Your task to perform on an android device: turn on the 12-hour format for clock Image 0: 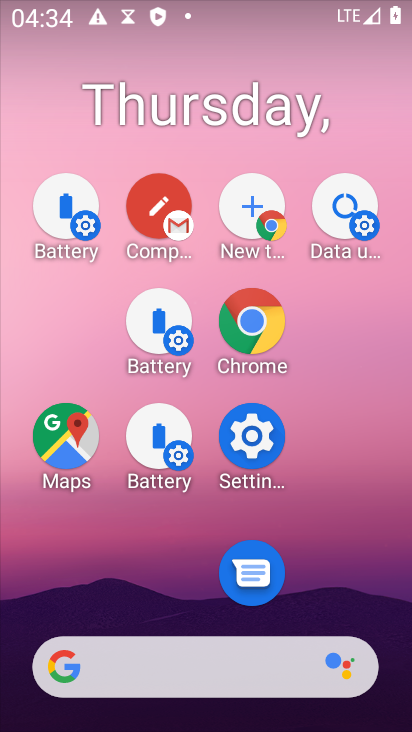
Step 0: click (411, 601)
Your task to perform on an android device: turn on the 12-hour format for clock Image 1: 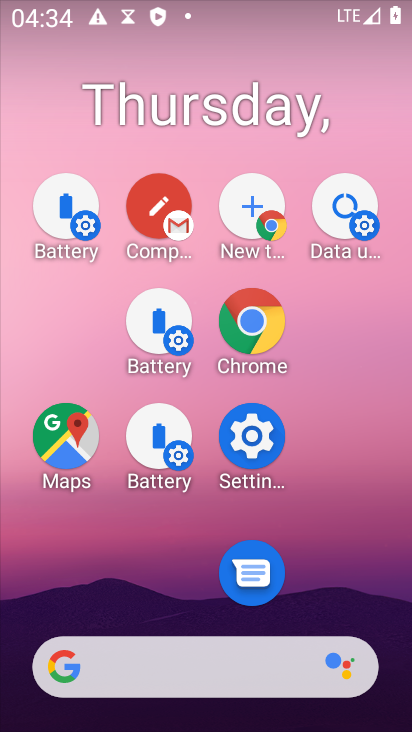
Step 1: drag from (240, 612) to (235, 196)
Your task to perform on an android device: turn on the 12-hour format for clock Image 2: 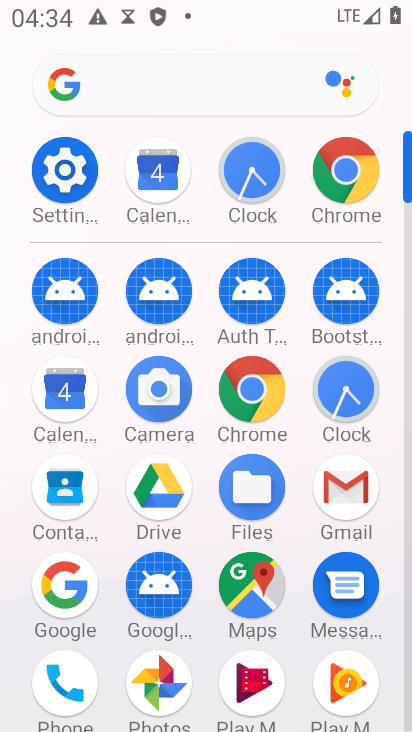
Step 2: click (352, 370)
Your task to perform on an android device: turn on the 12-hour format for clock Image 3: 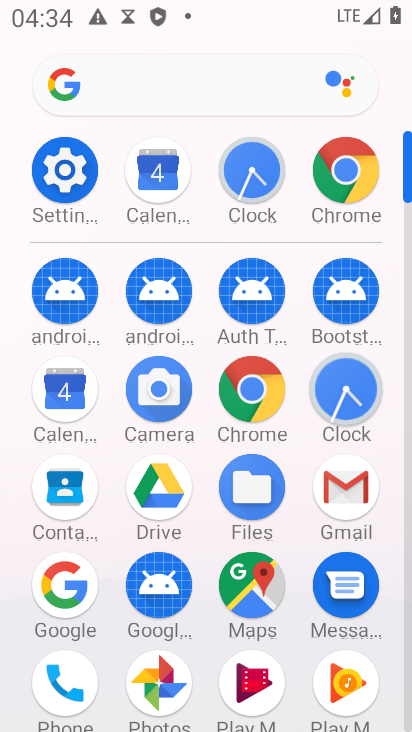
Step 3: click (349, 377)
Your task to perform on an android device: turn on the 12-hour format for clock Image 4: 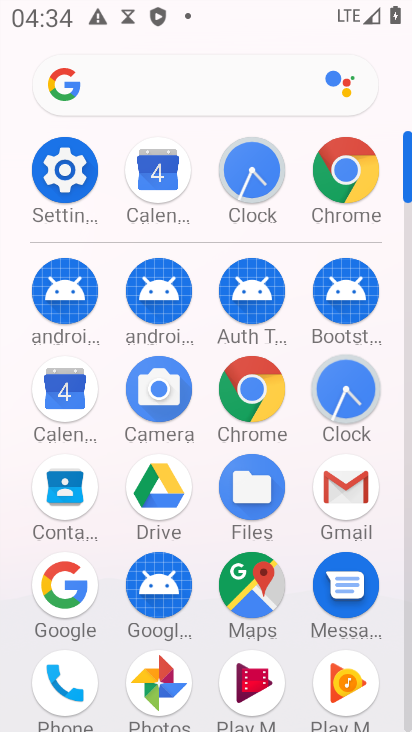
Step 4: click (349, 378)
Your task to perform on an android device: turn on the 12-hour format for clock Image 5: 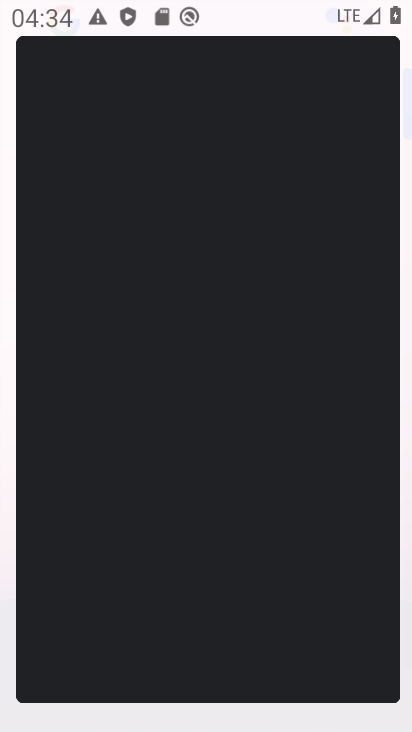
Step 5: click (349, 378)
Your task to perform on an android device: turn on the 12-hour format for clock Image 6: 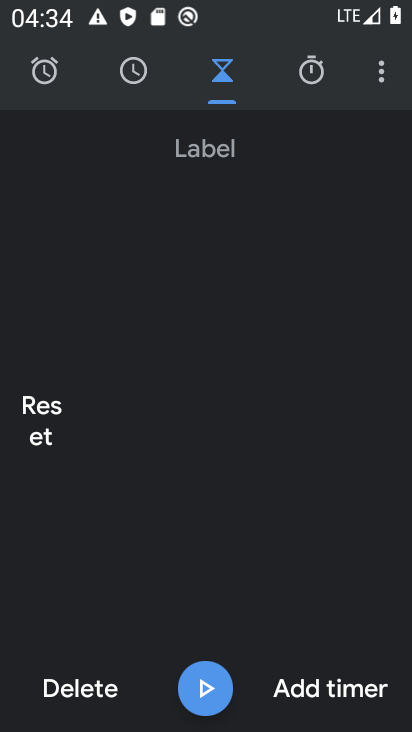
Step 6: click (349, 378)
Your task to perform on an android device: turn on the 12-hour format for clock Image 7: 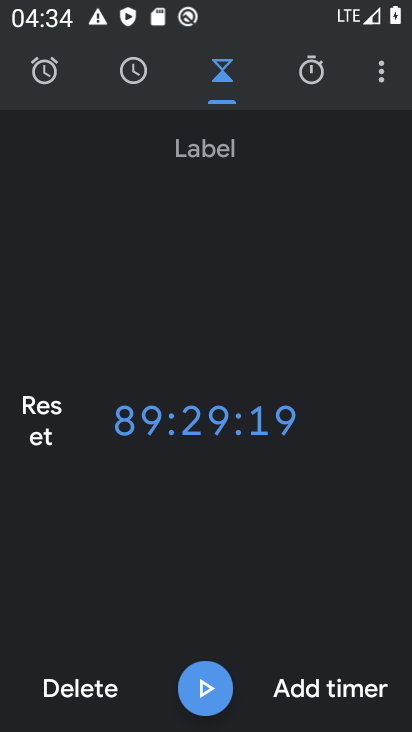
Step 7: click (364, 69)
Your task to perform on an android device: turn on the 12-hour format for clock Image 8: 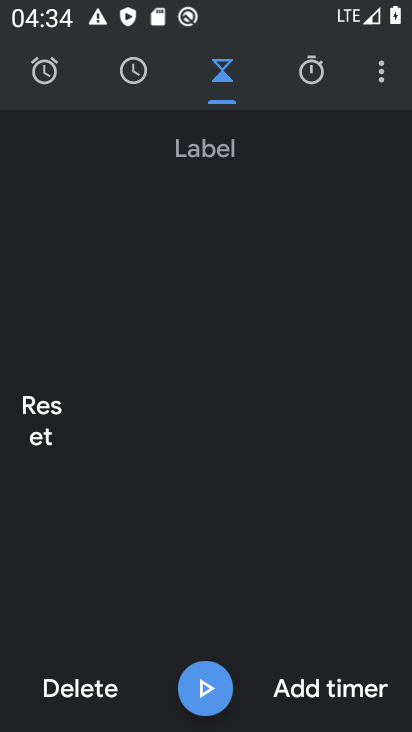
Step 8: click (385, 69)
Your task to perform on an android device: turn on the 12-hour format for clock Image 9: 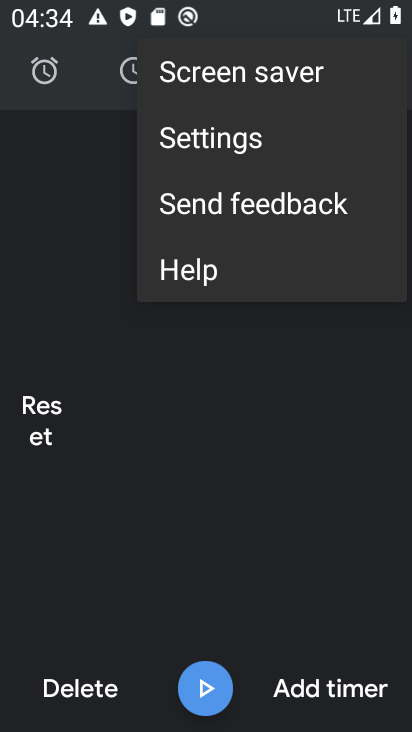
Step 9: click (369, 84)
Your task to perform on an android device: turn on the 12-hour format for clock Image 10: 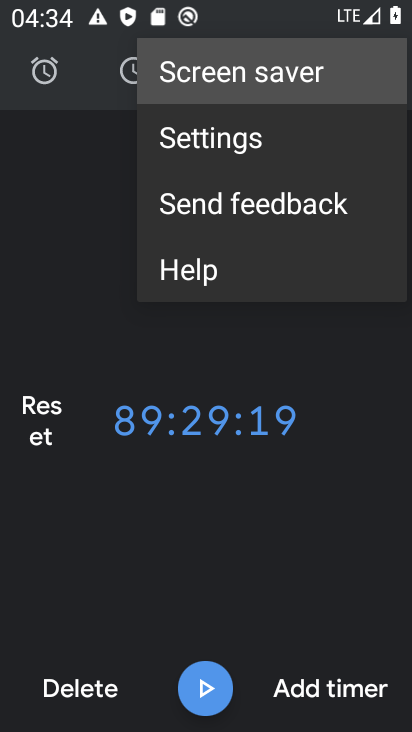
Step 10: click (238, 140)
Your task to perform on an android device: turn on the 12-hour format for clock Image 11: 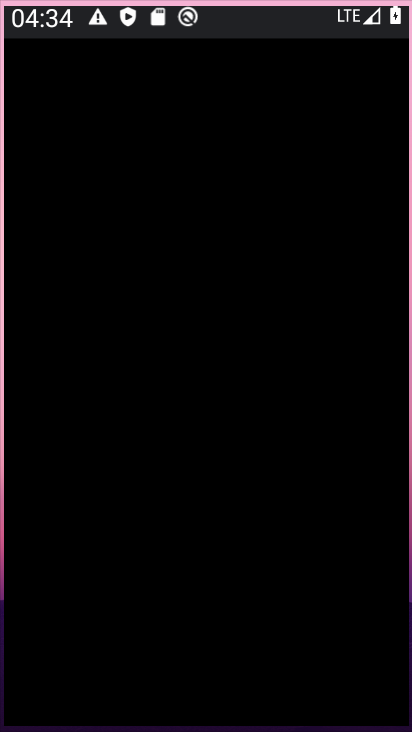
Step 11: click (238, 140)
Your task to perform on an android device: turn on the 12-hour format for clock Image 12: 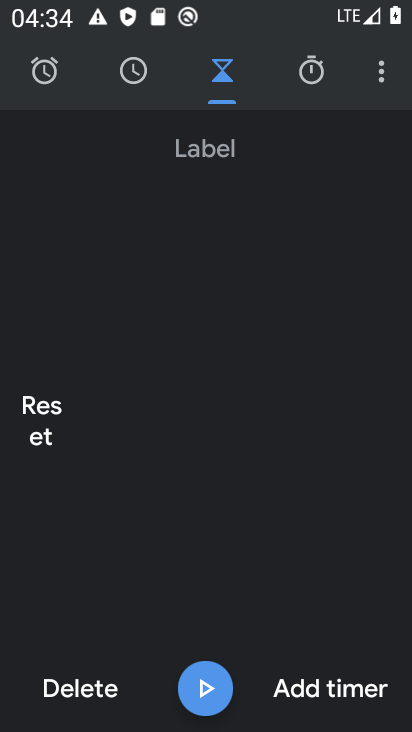
Step 12: click (386, 74)
Your task to perform on an android device: turn on the 12-hour format for clock Image 13: 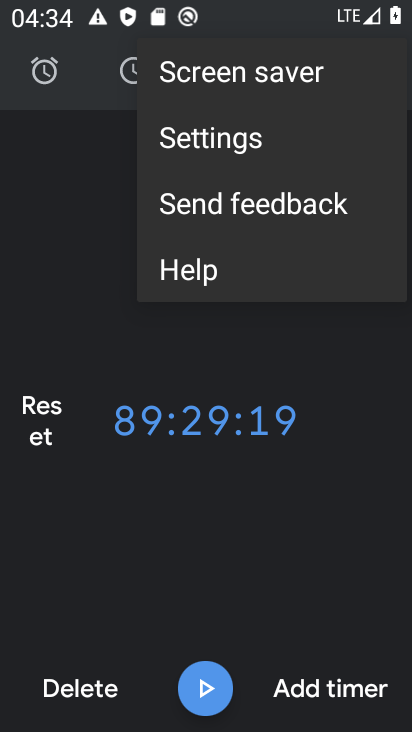
Step 13: click (197, 147)
Your task to perform on an android device: turn on the 12-hour format for clock Image 14: 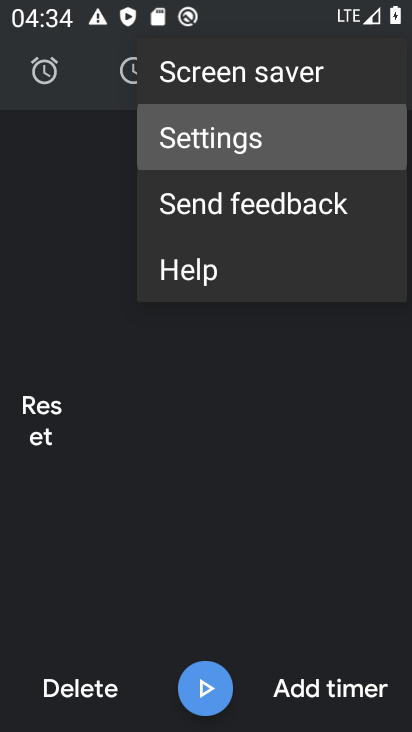
Step 14: click (199, 136)
Your task to perform on an android device: turn on the 12-hour format for clock Image 15: 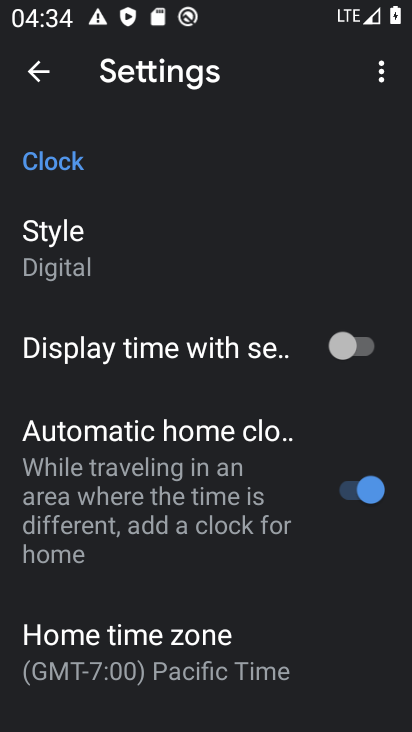
Step 15: click (246, 327)
Your task to perform on an android device: turn on the 12-hour format for clock Image 16: 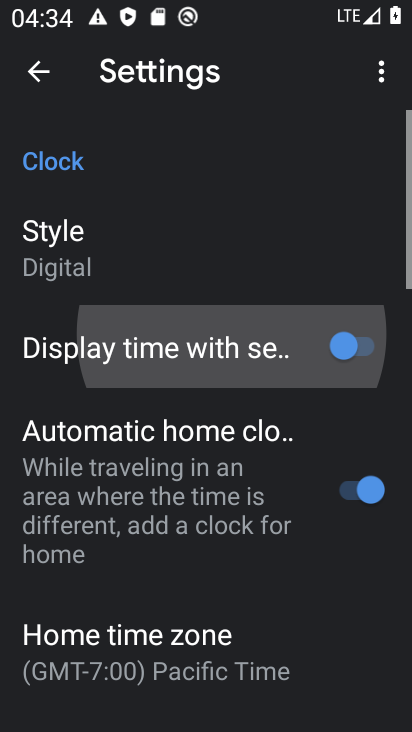
Step 16: drag from (259, 565) to (190, 119)
Your task to perform on an android device: turn on the 12-hour format for clock Image 17: 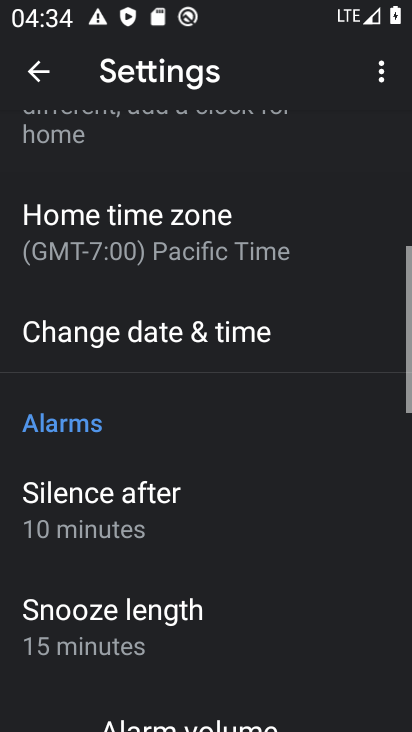
Step 17: drag from (232, 475) to (206, 166)
Your task to perform on an android device: turn on the 12-hour format for clock Image 18: 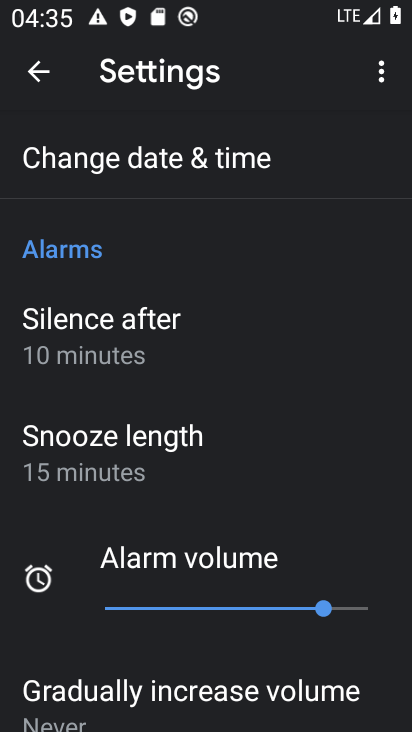
Step 18: click (164, 143)
Your task to perform on an android device: turn on the 12-hour format for clock Image 19: 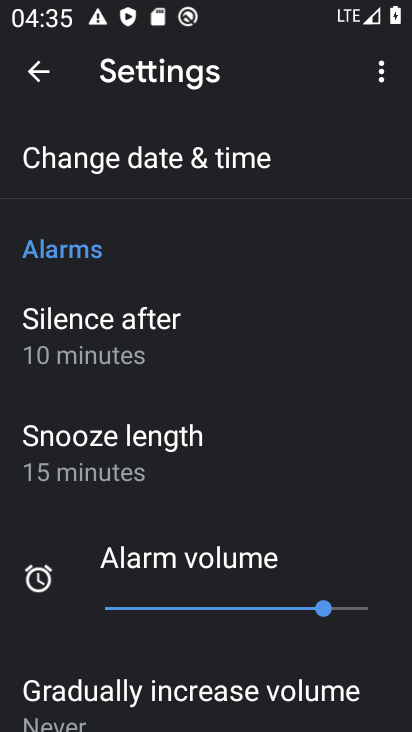
Step 19: click (166, 146)
Your task to perform on an android device: turn on the 12-hour format for clock Image 20: 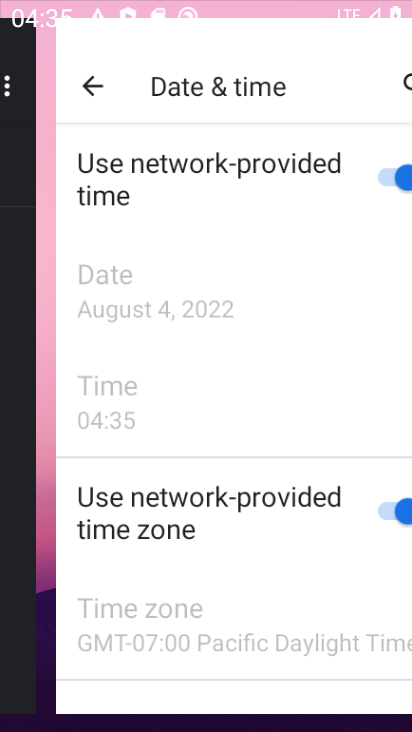
Step 20: click (167, 146)
Your task to perform on an android device: turn on the 12-hour format for clock Image 21: 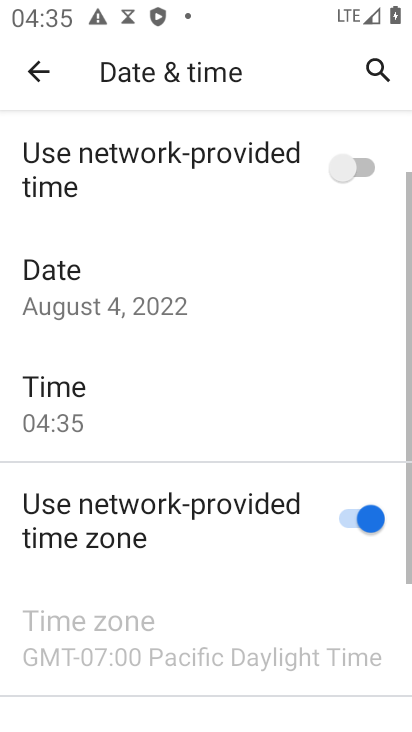
Step 21: drag from (330, 620) to (294, 328)
Your task to perform on an android device: turn on the 12-hour format for clock Image 22: 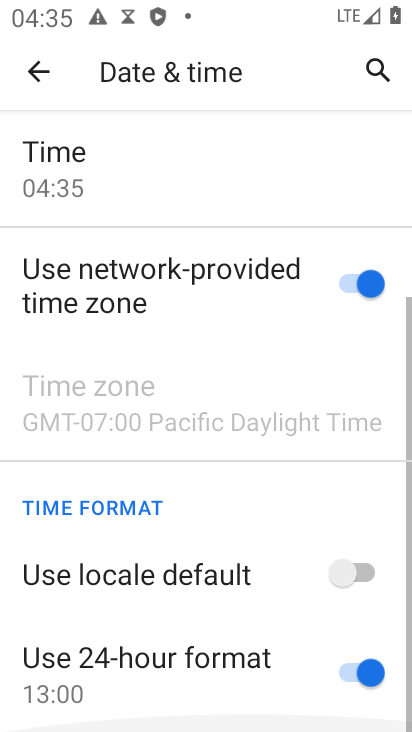
Step 22: drag from (250, 478) to (237, 279)
Your task to perform on an android device: turn on the 12-hour format for clock Image 23: 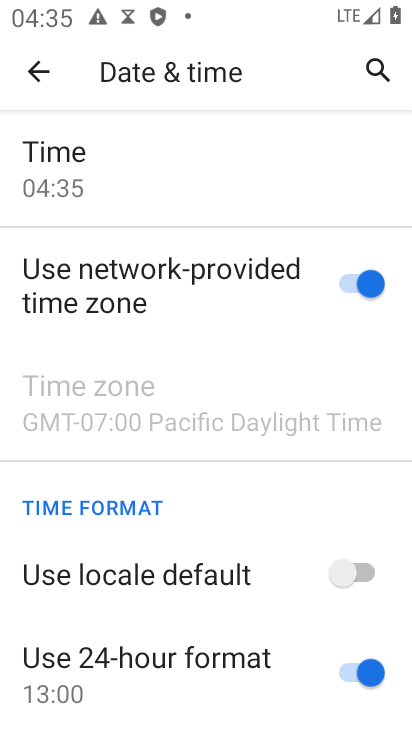
Step 23: click (339, 566)
Your task to perform on an android device: turn on the 12-hour format for clock Image 24: 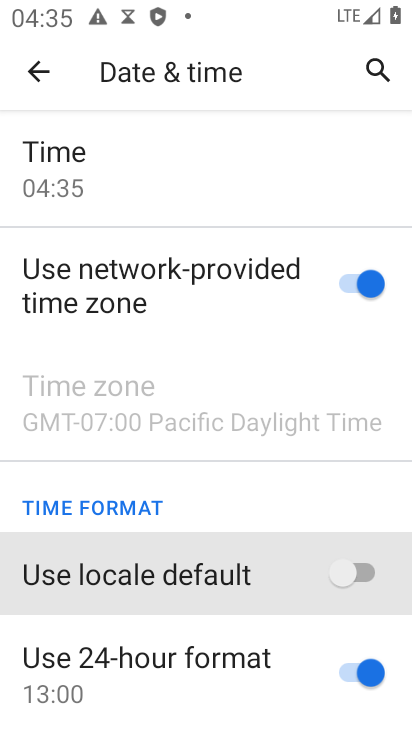
Step 24: click (365, 667)
Your task to perform on an android device: turn on the 12-hour format for clock Image 25: 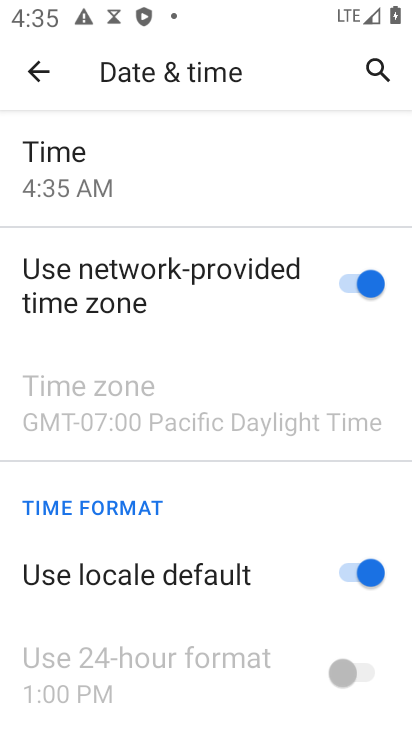
Step 25: task complete